Your task to perform on an android device: Open Amazon Image 0: 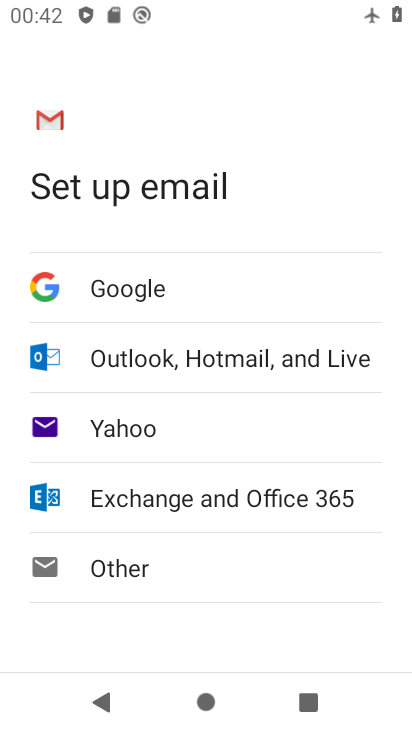
Step 0: press home button
Your task to perform on an android device: Open Amazon Image 1: 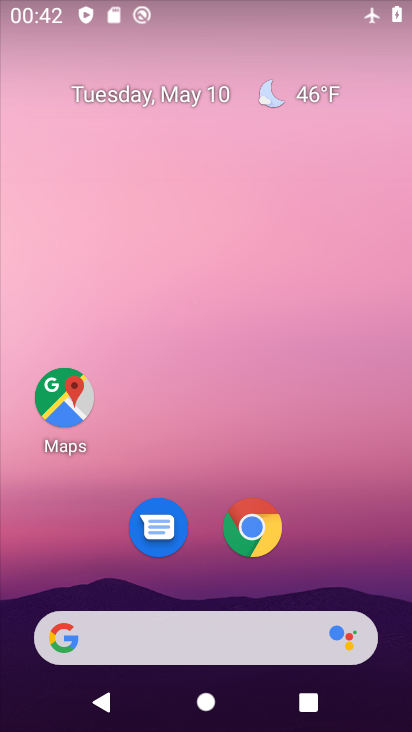
Step 1: click (248, 527)
Your task to perform on an android device: Open Amazon Image 2: 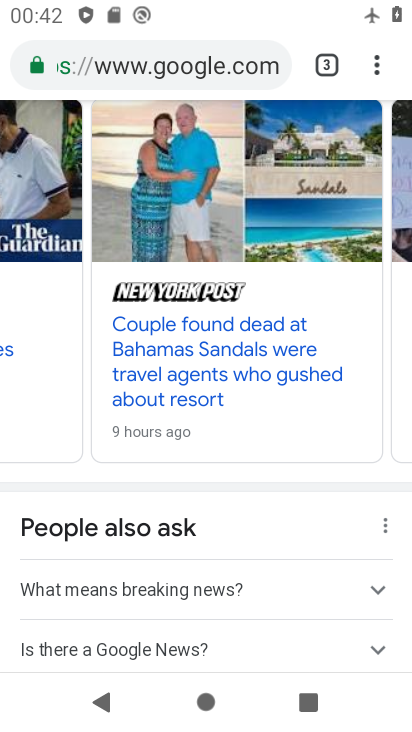
Step 2: click (332, 65)
Your task to perform on an android device: Open Amazon Image 3: 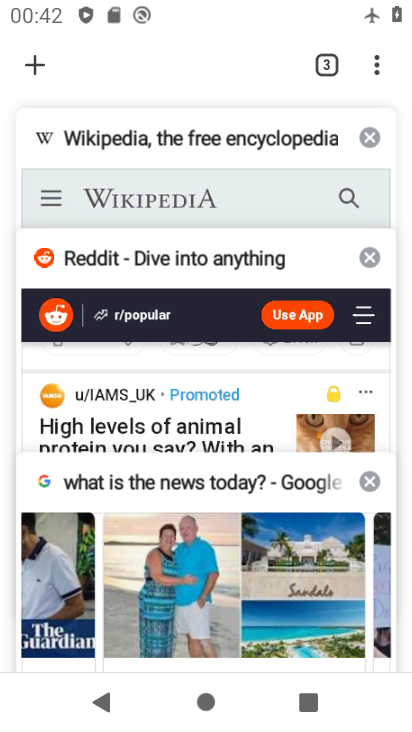
Step 3: click (35, 64)
Your task to perform on an android device: Open Amazon Image 4: 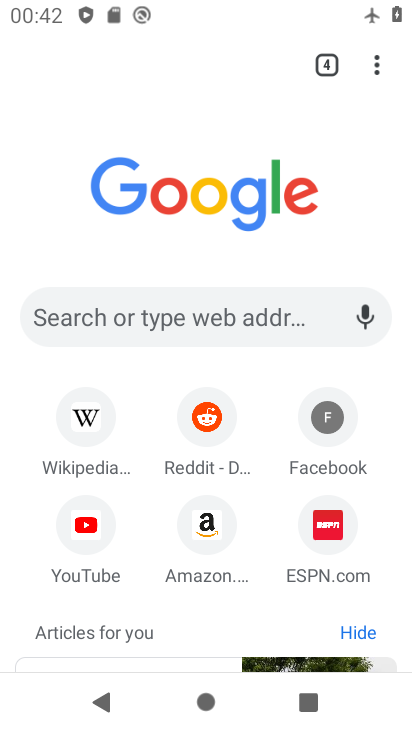
Step 4: click (189, 563)
Your task to perform on an android device: Open Amazon Image 5: 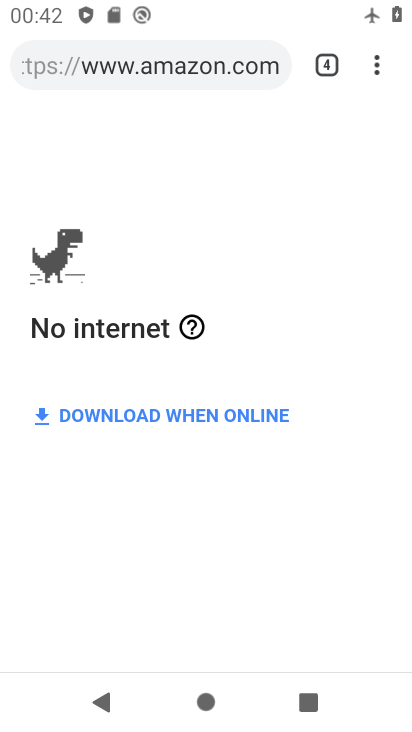
Step 5: task complete